Your task to perform on an android device: turn on translation in the chrome app Image 0: 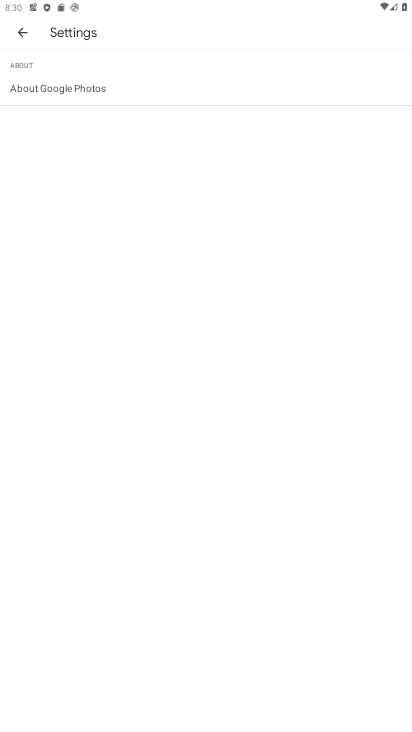
Step 0: press home button
Your task to perform on an android device: turn on translation in the chrome app Image 1: 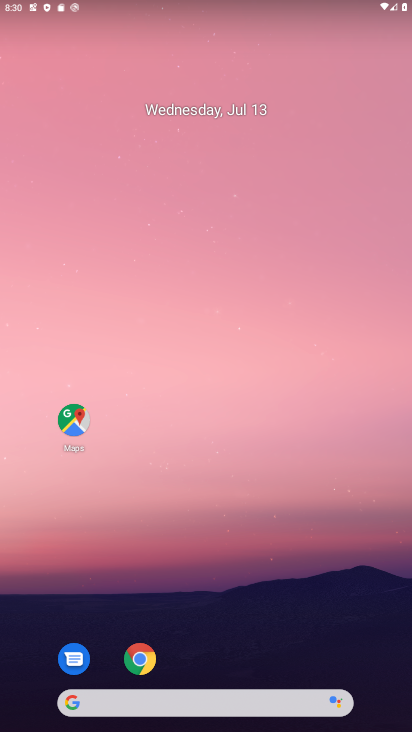
Step 1: click (144, 652)
Your task to perform on an android device: turn on translation in the chrome app Image 2: 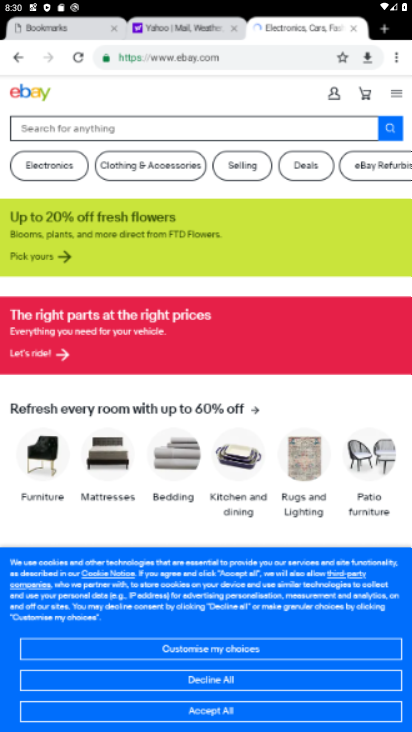
Step 2: click (399, 62)
Your task to perform on an android device: turn on translation in the chrome app Image 3: 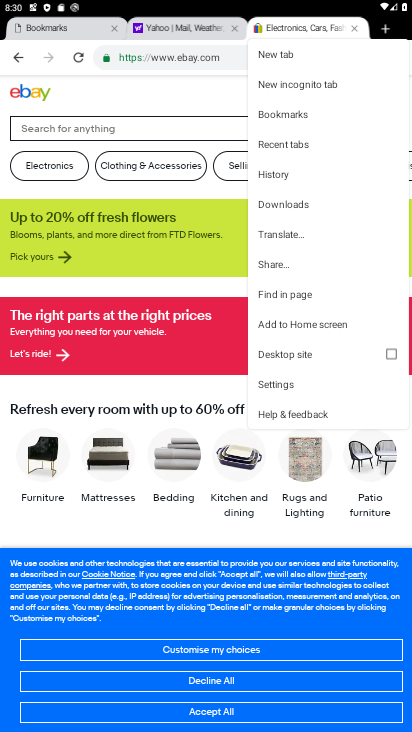
Step 3: click (278, 377)
Your task to perform on an android device: turn on translation in the chrome app Image 4: 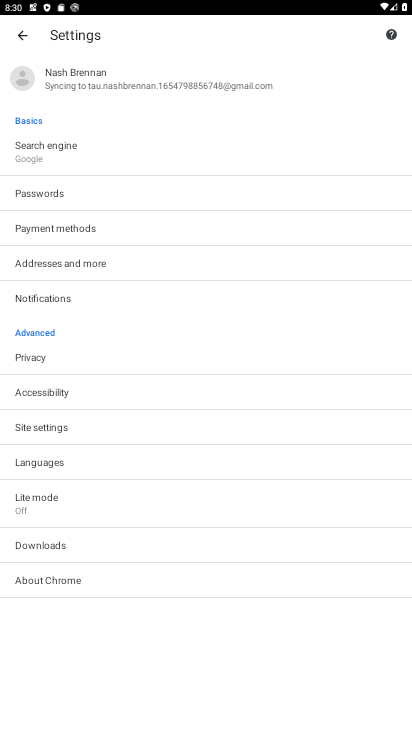
Step 4: click (65, 469)
Your task to perform on an android device: turn on translation in the chrome app Image 5: 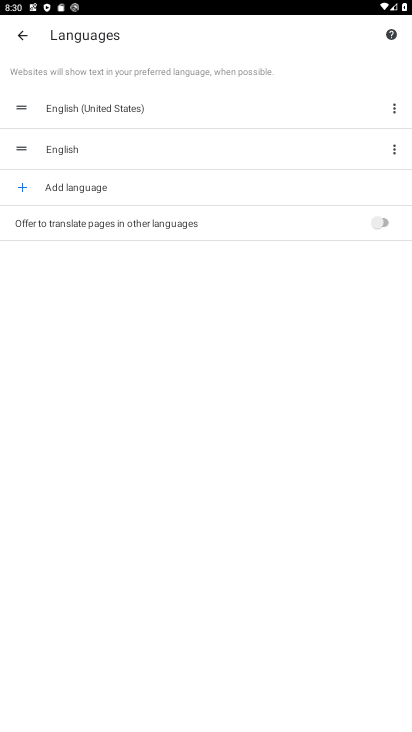
Step 5: click (382, 216)
Your task to perform on an android device: turn on translation in the chrome app Image 6: 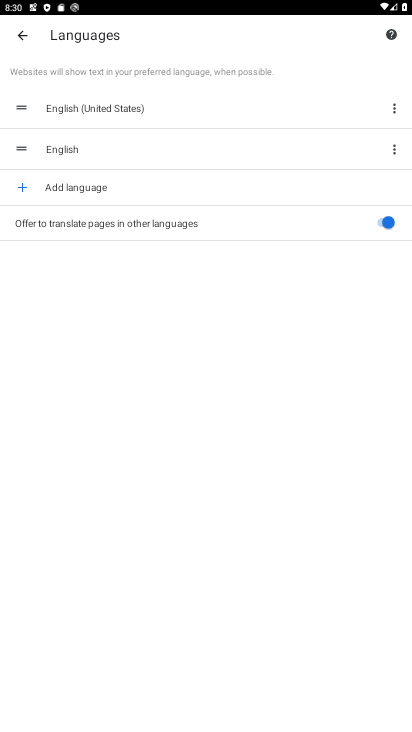
Step 6: task complete